Your task to perform on an android device: Is it going to rain tomorrow? Image 0: 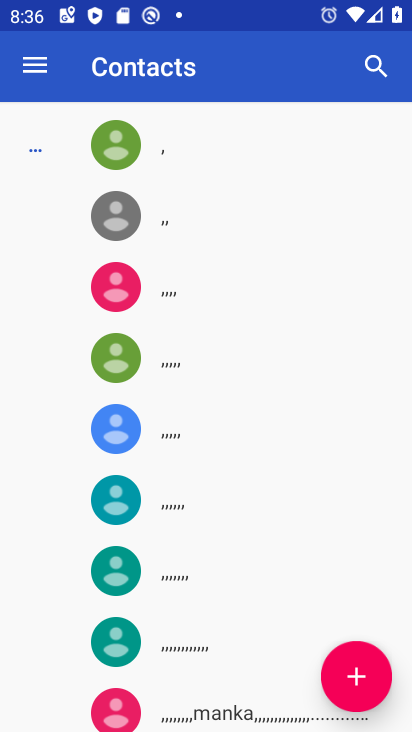
Step 0: press home button
Your task to perform on an android device: Is it going to rain tomorrow? Image 1: 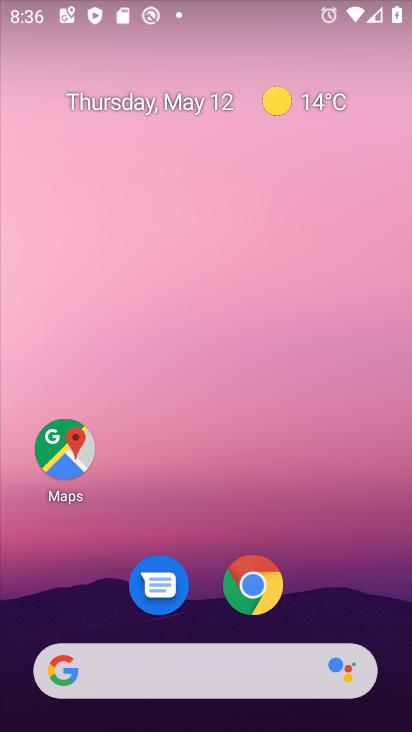
Step 1: click (307, 97)
Your task to perform on an android device: Is it going to rain tomorrow? Image 2: 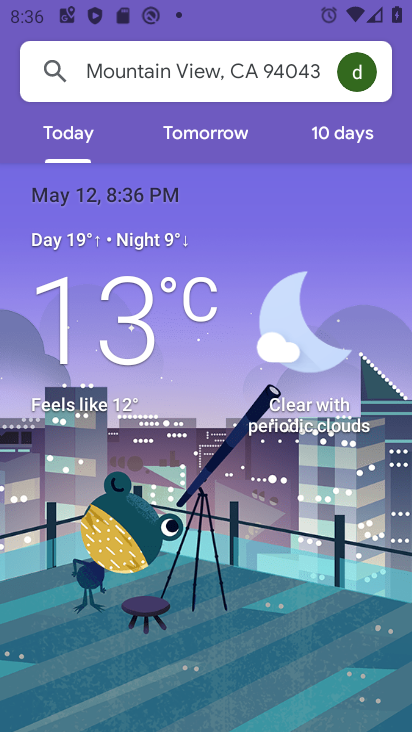
Step 2: drag from (249, 492) to (211, 214)
Your task to perform on an android device: Is it going to rain tomorrow? Image 3: 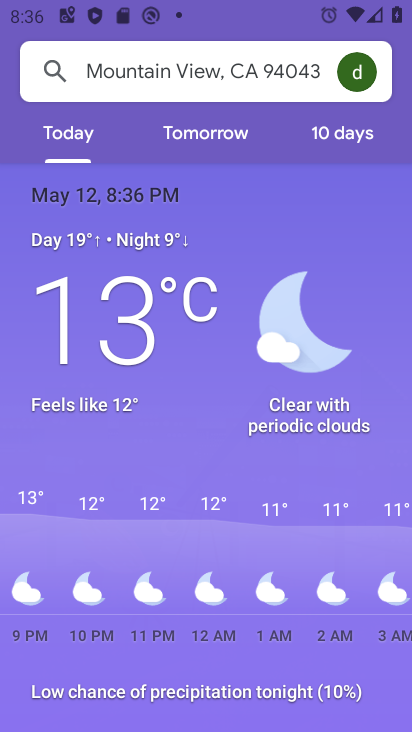
Step 3: click (186, 127)
Your task to perform on an android device: Is it going to rain tomorrow? Image 4: 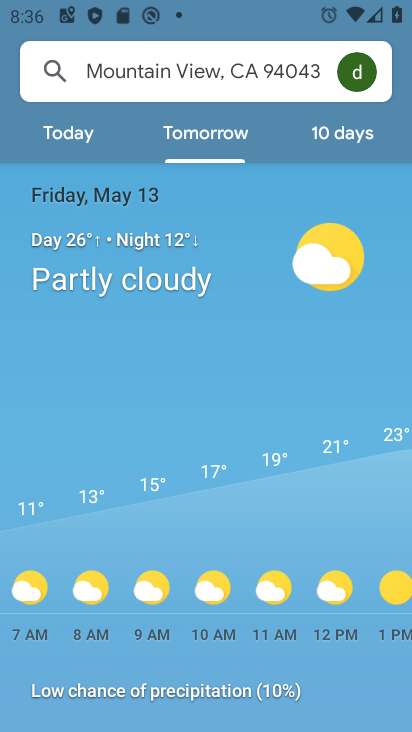
Step 4: task complete